Your task to perform on an android device: What is the recent news? Image 0: 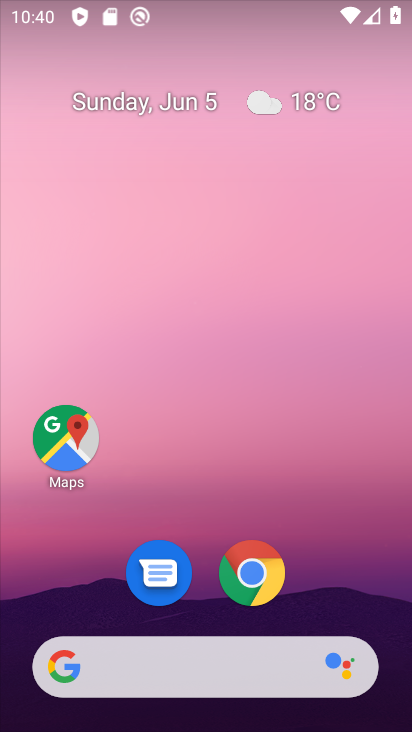
Step 0: click (183, 685)
Your task to perform on an android device: What is the recent news? Image 1: 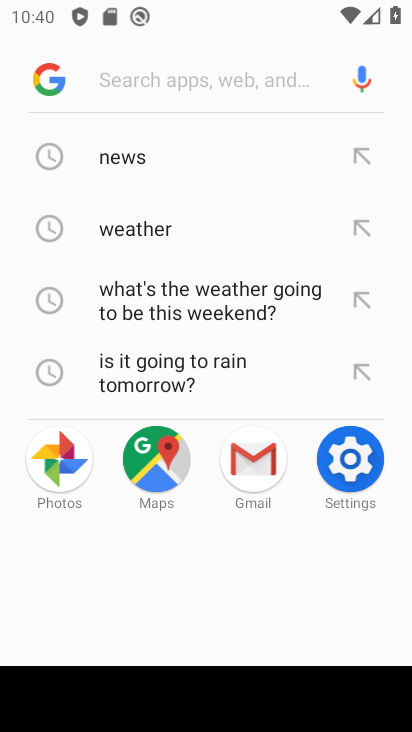
Step 1: type "what is the recent news"
Your task to perform on an android device: What is the recent news? Image 2: 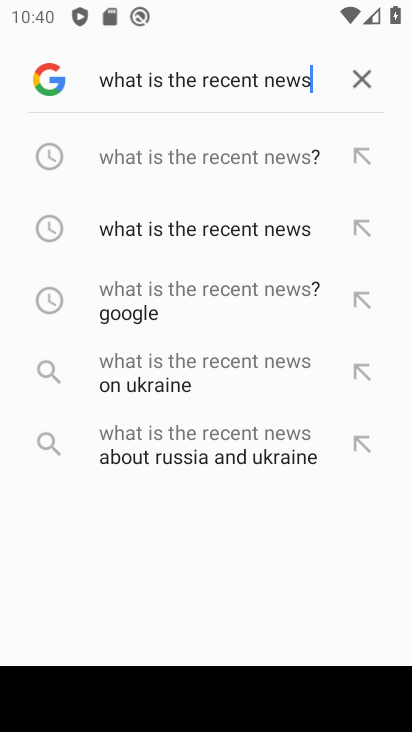
Step 2: click (201, 145)
Your task to perform on an android device: What is the recent news? Image 3: 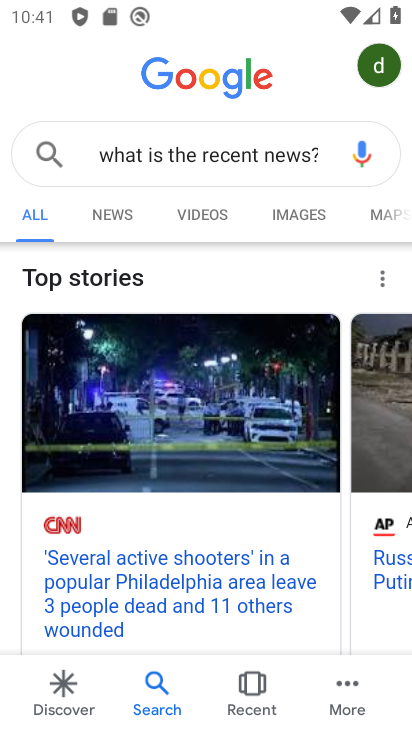
Step 3: click (121, 202)
Your task to perform on an android device: What is the recent news? Image 4: 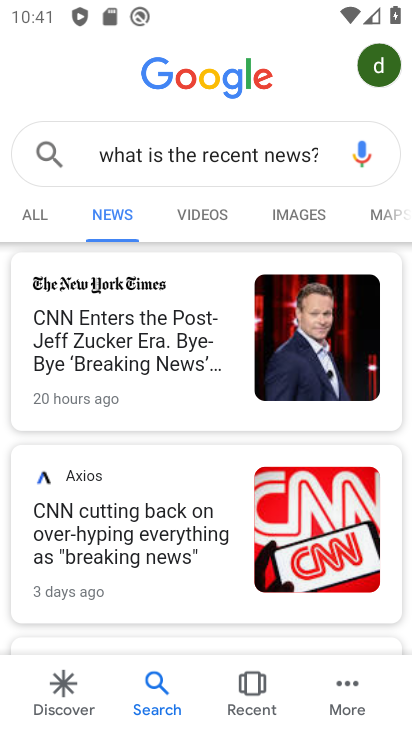
Step 4: task complete